Your task to perform on an android device: Open the calendar app, open the side menu, and click the "Day" option Image 0: 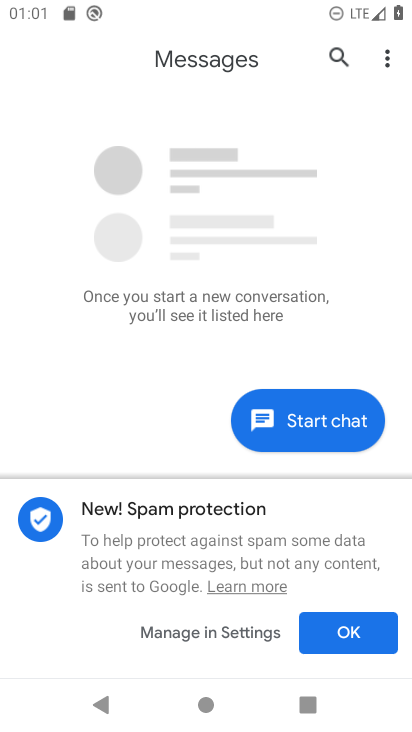
Step 0: press home button
Your task to perform on an android device: Open the calendar app, open the side menu, and click the "Day" option Image 1: 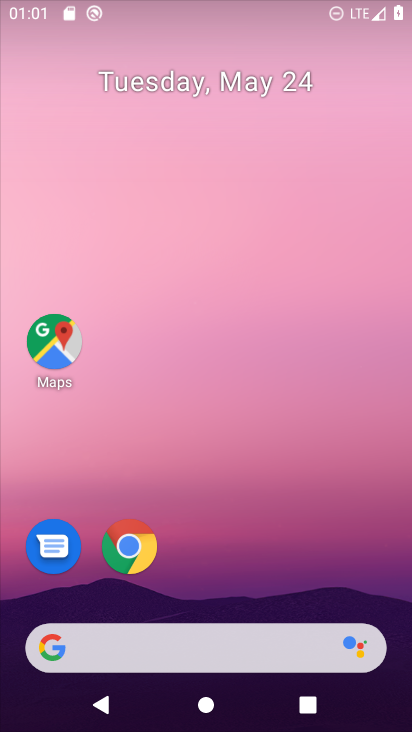
Step 1: drag from (214, 606) to (254, 11)
Your task to perform on an android device: Open the calendar app, open the side menu, and click the "Day" option Image 2: 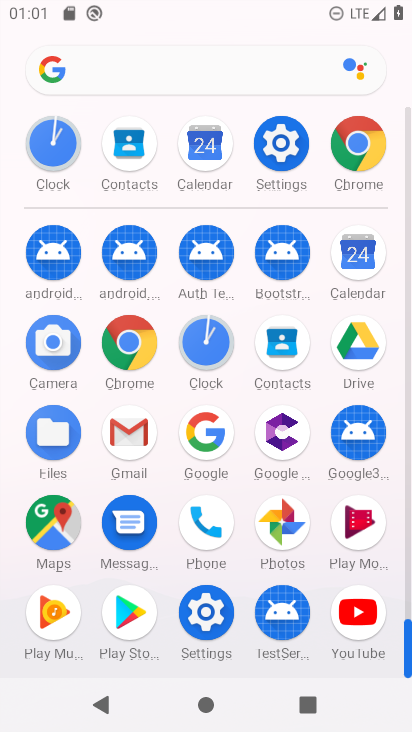
Step 2: click (379, 258)
Your task to perform on an android device: Open the calendar app, open the side menu, and click the "Day" option Image 3: 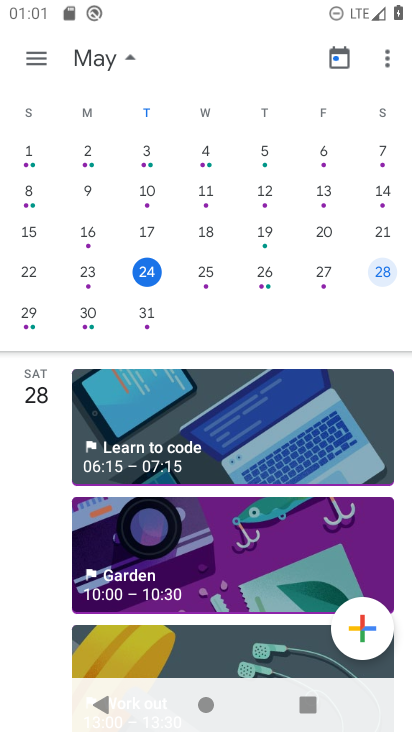
Step 3: click (39, 64)
Your task to perform on an android device: Open the calendar app, open the side menu, and click the "Day" option Image 4: 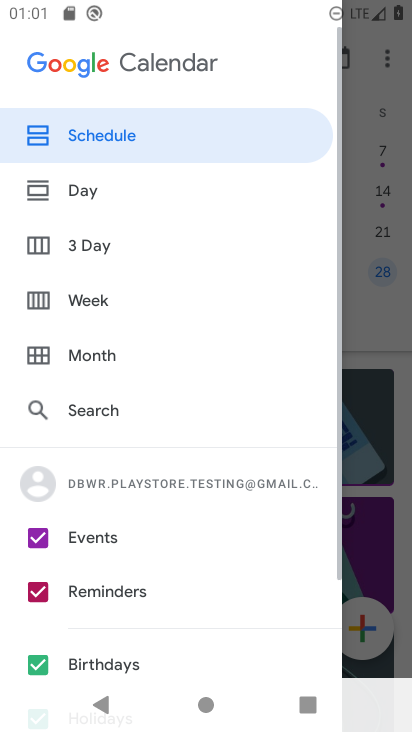
Step 4: click (125, 189)
Your task to perform on an android device: Open the calendar app, open the side menu, and click the "Day" option Image 5: 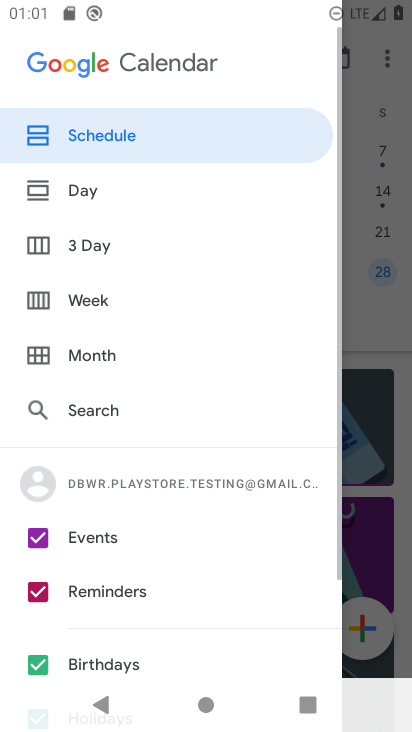
Step 5: click (63, 178)
Your task to perform on an android device: Open the calendar app, open the side menu, and click the "Day" option Image 6: 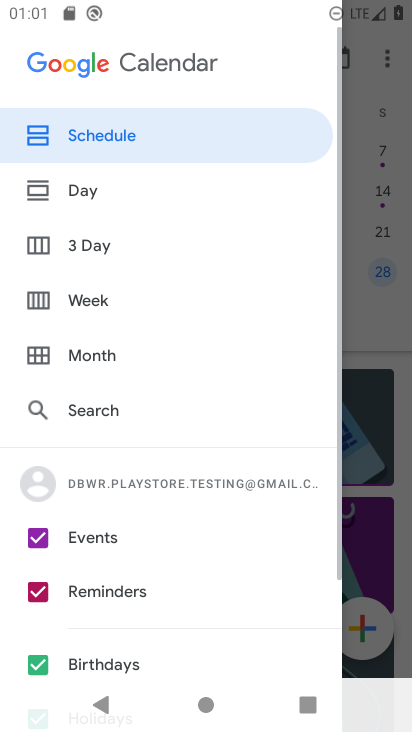
Step 6: click (134, 183)
Your task to perform on an android device: Open the calendar app, open the side menu, and click the "Day" option Image 7: 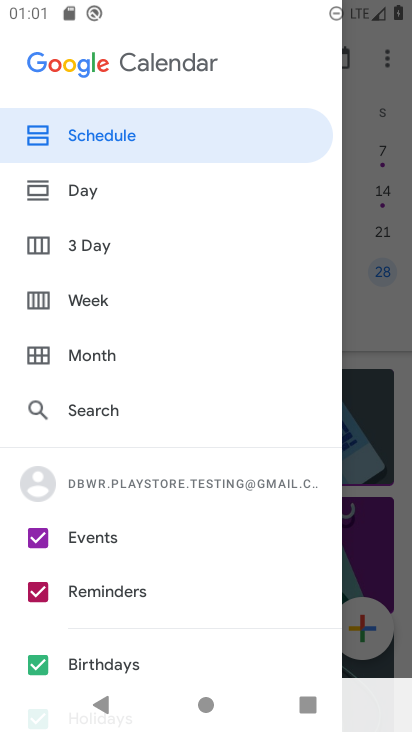
Step 7: click (91, 181)
Your task to perform on an android device: Open the calendar app, open the side menu, and click the "Day" option Image 8: 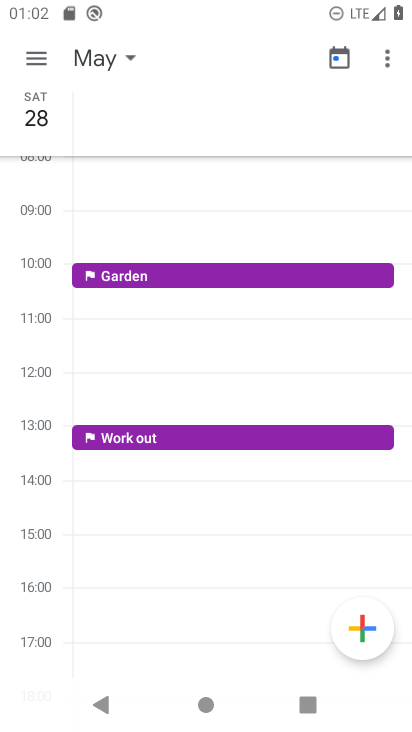
Step 8: task complete